Your task to perform on an android device: toggle pop-ups in chrome Image 0: 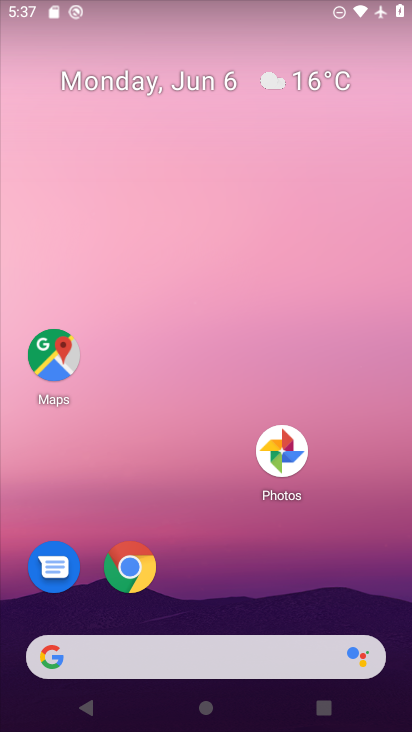
Step 0: drag from (220, 289) to (191, 142)
Your task to perform on an android device: toggle pop-ups in chrome Image 1: 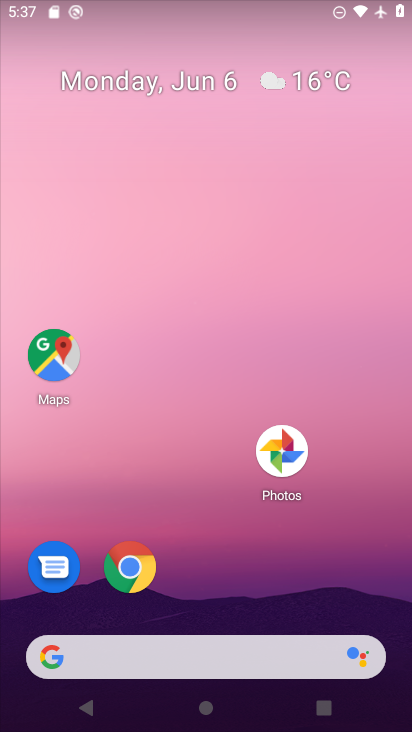
Step 1: drag from (273, 663) to (220, 80)
Your task to perform on an android device: toggle pop-ups in chrome Image 2: 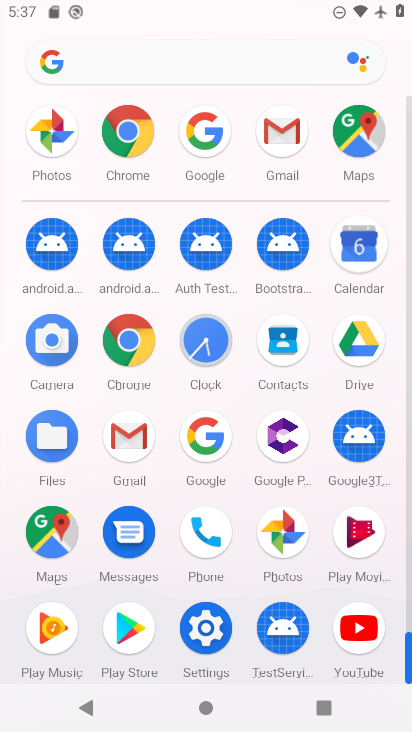
Step 2: click (130, 125)
Your task to perform on an android device: toggle pop-ups in chrome Image 3: 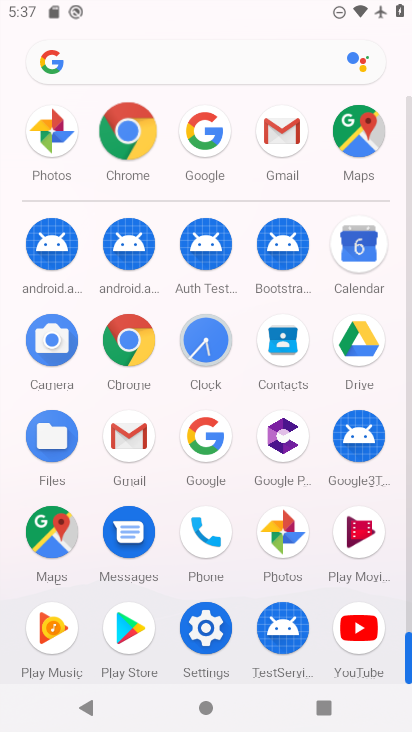
Step 3: click (128, 122)
Your task to perform on an android device: toggle pop-ups in chrome Image 4: 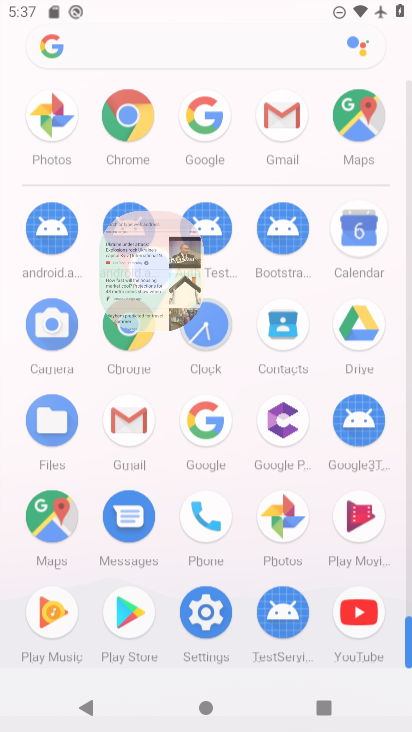
Step 4: click (115, 138)
Your task to perform on an android device: toggle pop-ups in chrome Image 5: 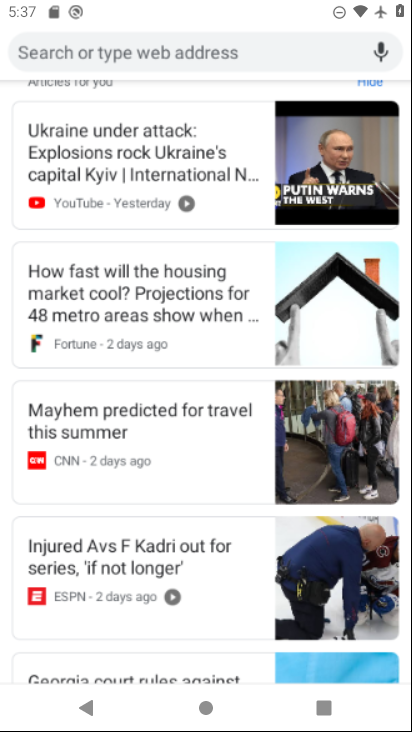
Step 5: click (110, 134)
Your task to perform on an android device: toggle pop-ups in chrome Image 6: 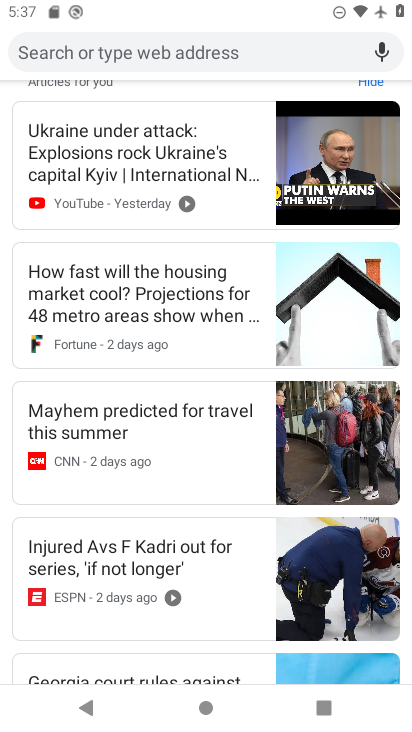
Step 6: press back button
Your task to perform on an android device: toggle pop-ups in chrome Image 7: 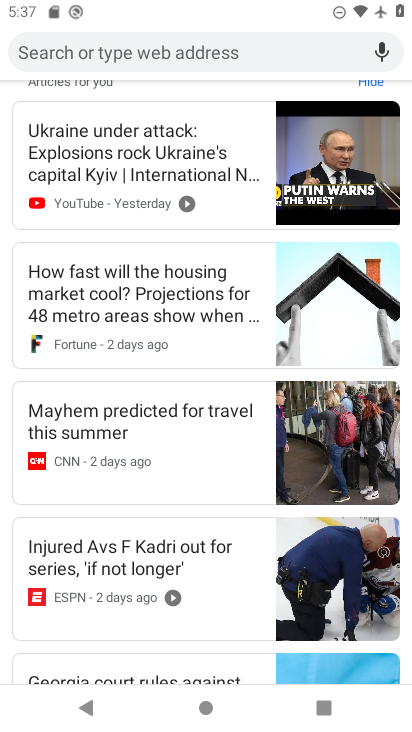
Step 7: press back button
Your task to perform on an android device: toggle pop-ups in chrome Image 8: 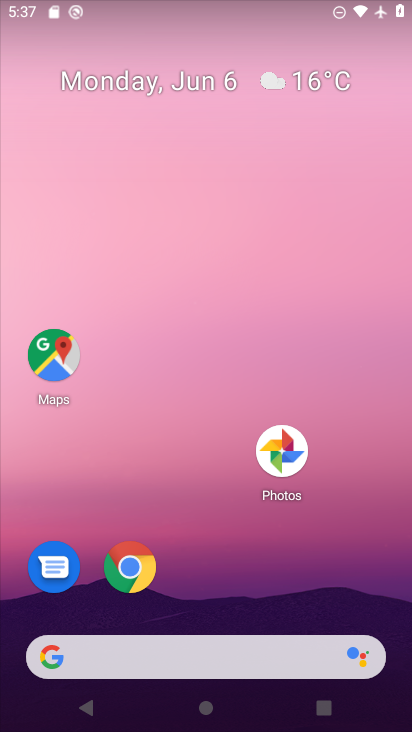
Step 8: drag from (259, 712) to (181, 0)
Your task to perform on an android device: toggle pop-ups in chrome Image 9: 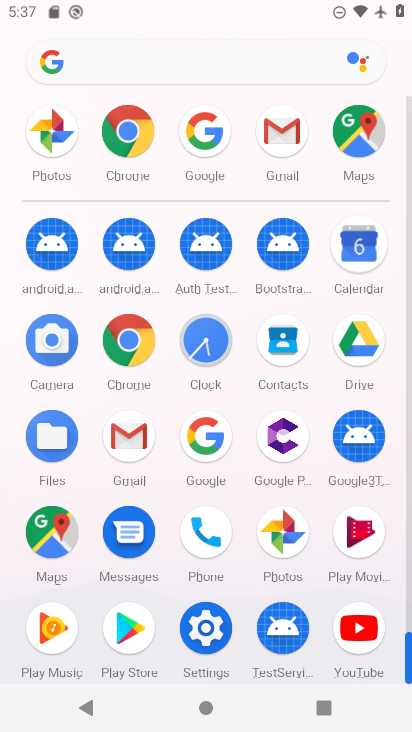
Step 9: click (126, 106)
Your task to perform on an android device: toggle pop-ups in chrome Image 10: 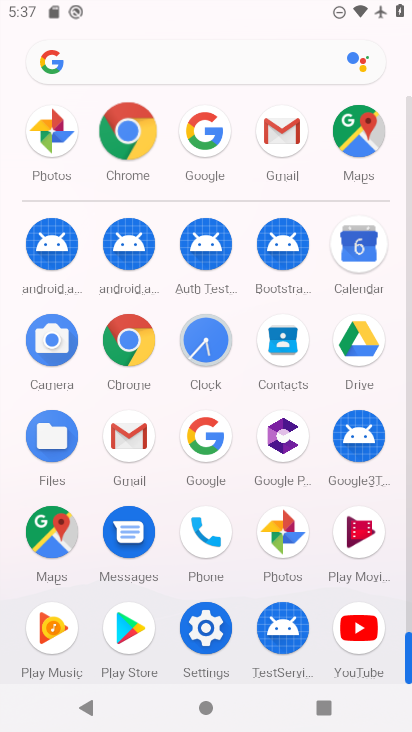
Step 10: click (126, 120)
Your task to perform on an android device: toggle pop-ups in chrome Image 11: 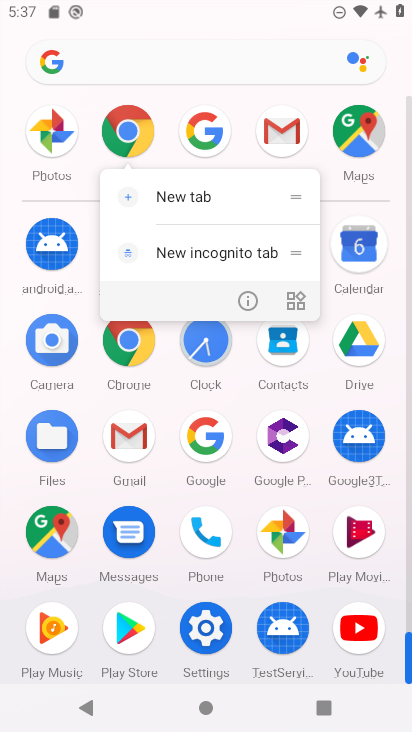
Step 11: click (140, 141)
Your task to perform on an android device: toggle pop-ups in chrome Image 12: 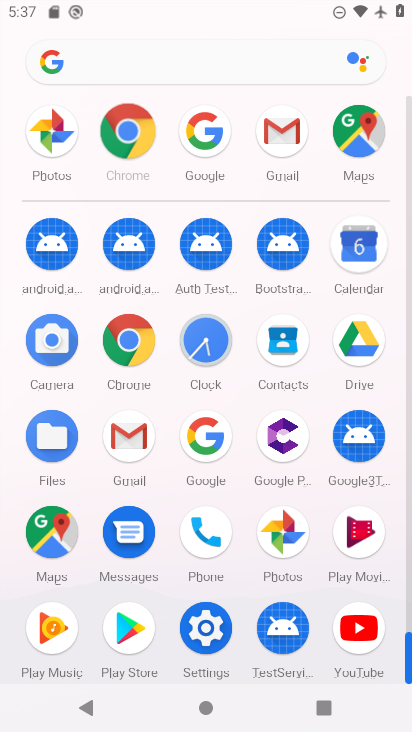
Step 12: click (140, 142)
Your task to perform on an android device: toggle pop-ups in chrome Image 13: 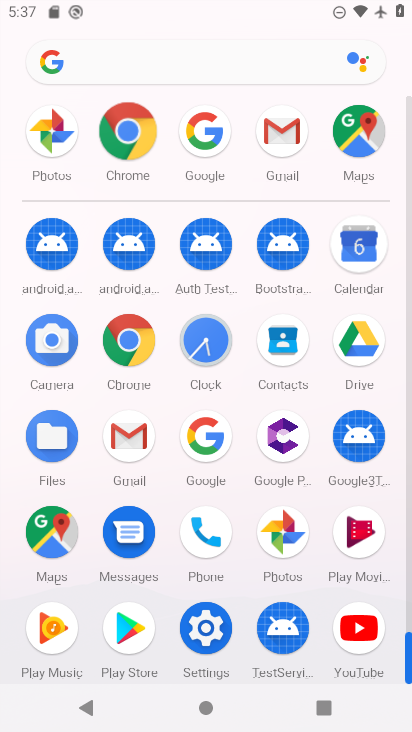
Step 13: click (139, 143)
Your task to perform on an android device: toggle pop-ups in chrome Image 14: 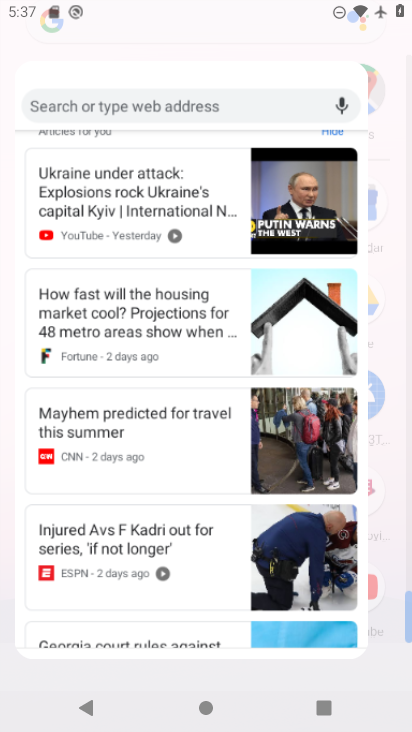
Step 14: click (139, 143)
Your task to perform on an android device: toggle pop-ups in chrome Image 15: 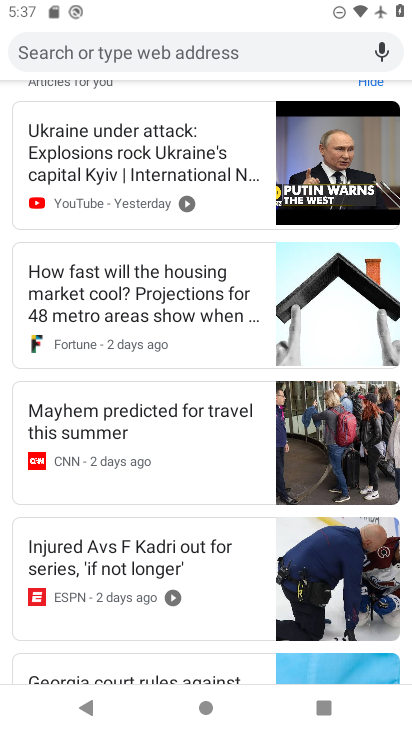
Step 15: drag from (263, 140) to (213, 598)
Your task to perform on an android device: toggle pop-ups in chrome Image 16: 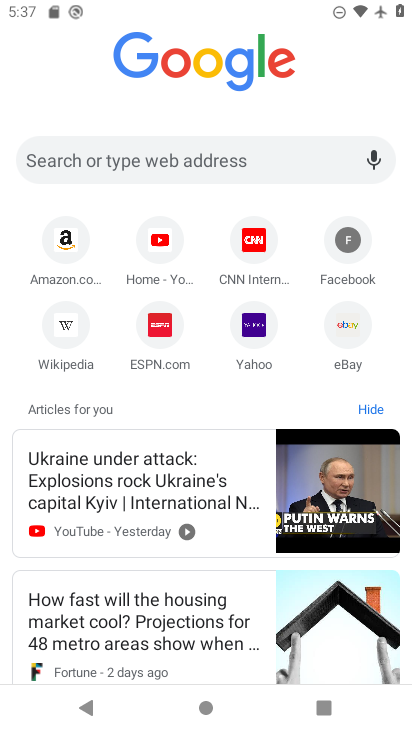
Step 16: drag from (203, 185) to (256, 648)
Your task to perform on an android device: toggle pop-ups in chrome Image 17: 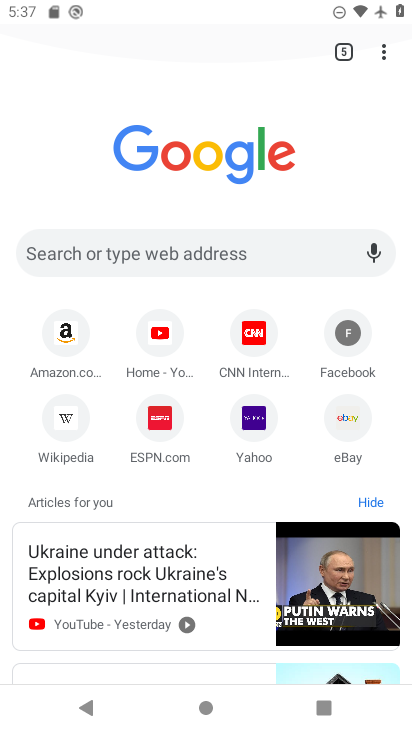
Step 17: drag from (242, 230) to (333, 692)
Your task to perform on an android device: toggle pop-ups in chrome Image 18: 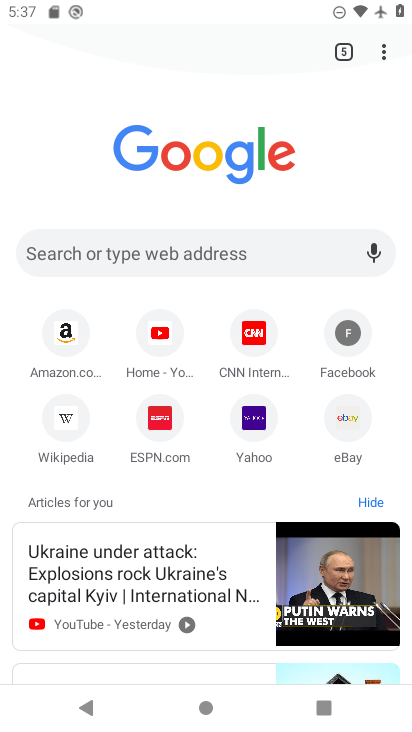
Step 18: drag from (230, 159) to (276, 554)
Your task to perform on an android device: toggle pop-ups in chrome Image 19: 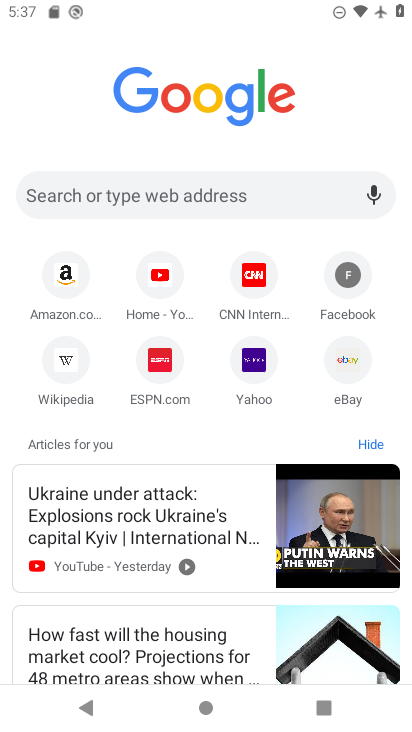
Step 19: drag from (350, 59) to (382, 412)
Your task to perform on an android device: toggle pop-ups in chrome Image 20: 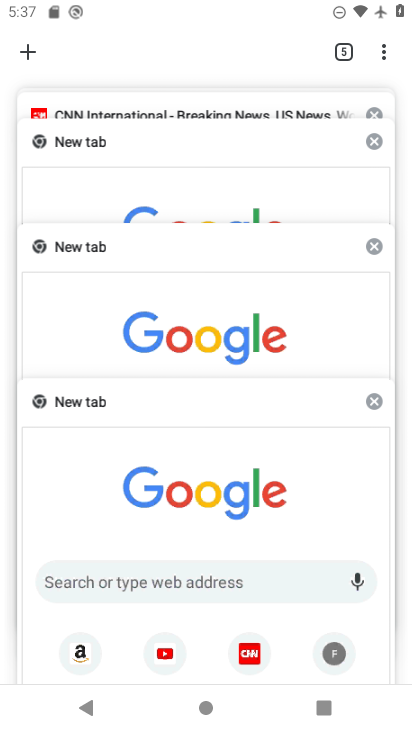
Step 20: drag from (382, 52) to (296, 205)
Your task to perform on an android device: toggle pop-ups in chrome Image 21: 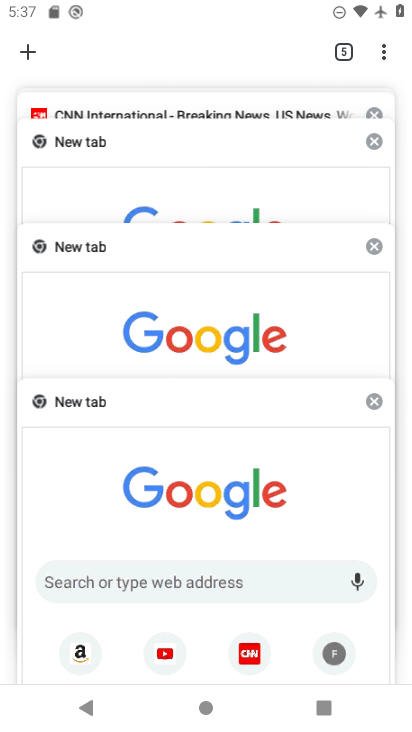
Step 21: click (82, 61)
Your task to perform on an android device: toggle pop-ups in chrome Image 22: 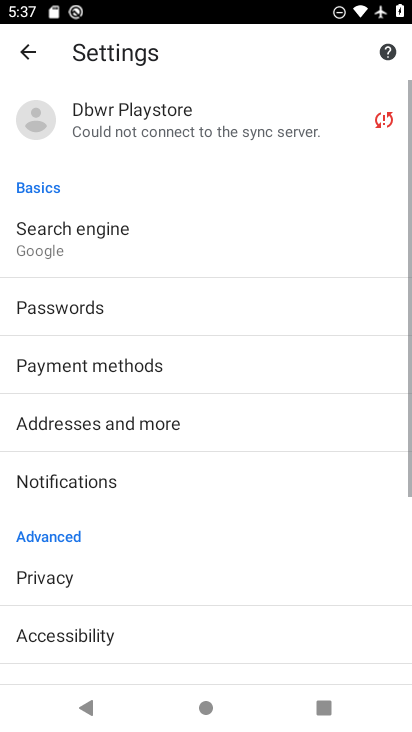
Step 22: click (82, 61)
Your task to perform on an android device: toggle pop-ups in chrome Image 23: 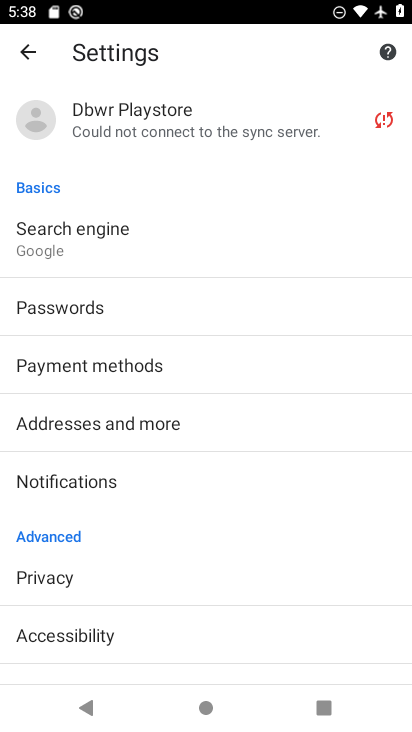
Step 23: drag from (43, 548) to (56, 264)
Your task to perform on an android device: toggle pop-ups in chrome Image 24: 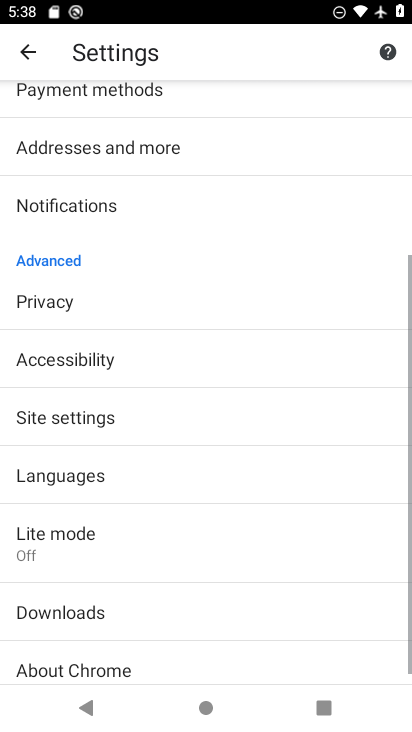
Step 24: drag from (93, 443) to (80, 157)
Your task to perform on an android device: toggle pop-ups in chrome Image 25: 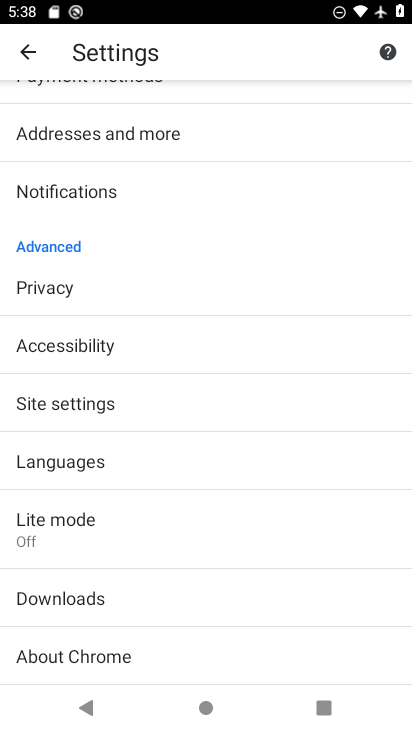
Step 25: click (53, 404)
Your task to perform on an android device: toggle pop-ups in chrome Image 26: 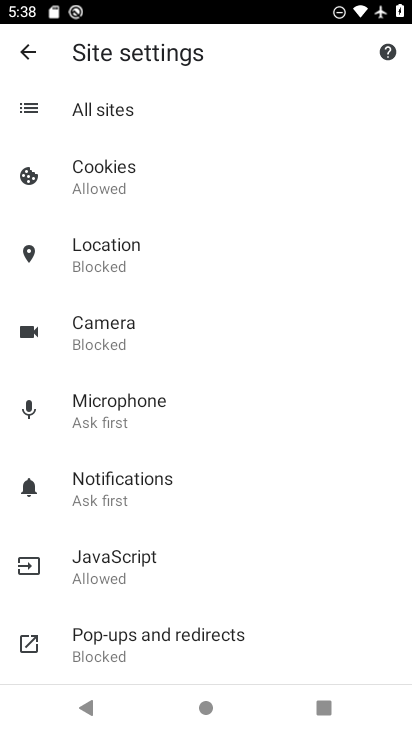
Step 26: click (96, 637)
Your task to perform on an android device: toggle pop-ups in chrome Image 27: 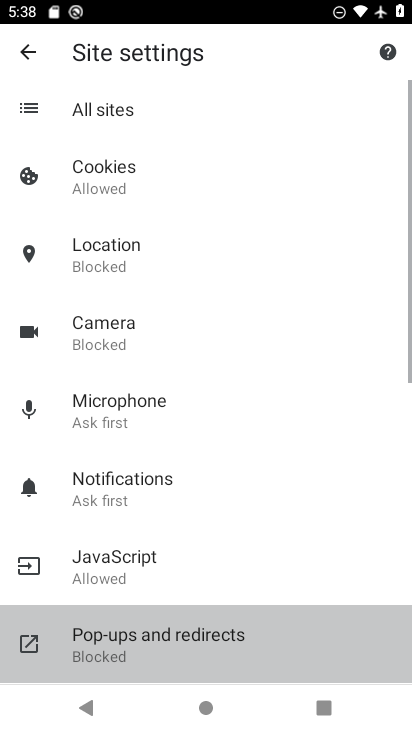
Step 27: click (99, 637)
Your task to perform on an android device: toggle pop-ups in chrome Image 28: 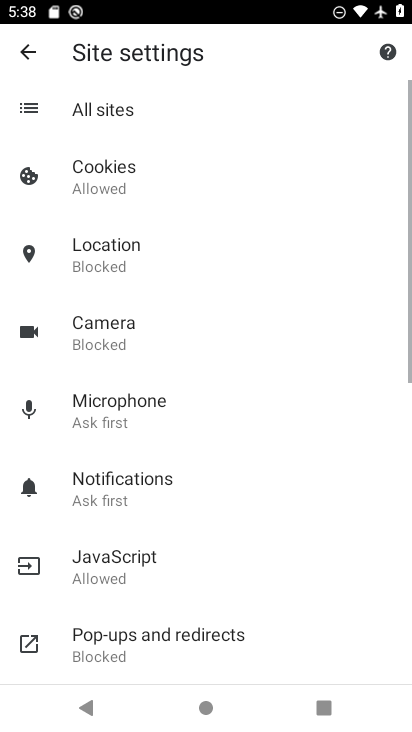
Step 28: click (99, 637)
Your task to perform on an android device: toggle pop-ups in chrome Image 29: 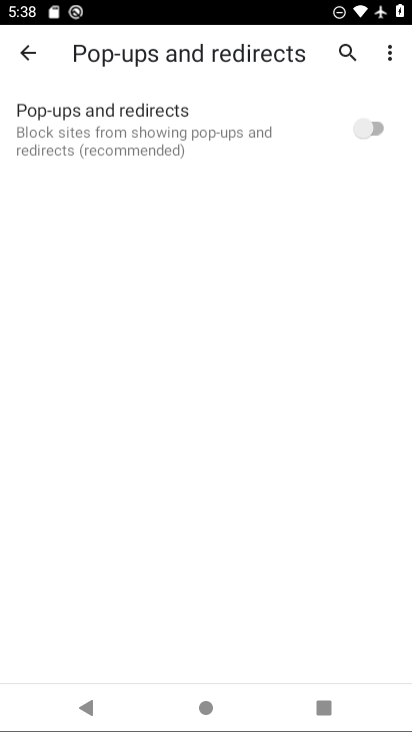
Step 29: click (102, 635)
Your task to perform on an android device: toggle pop-ups in chrome Image 30: 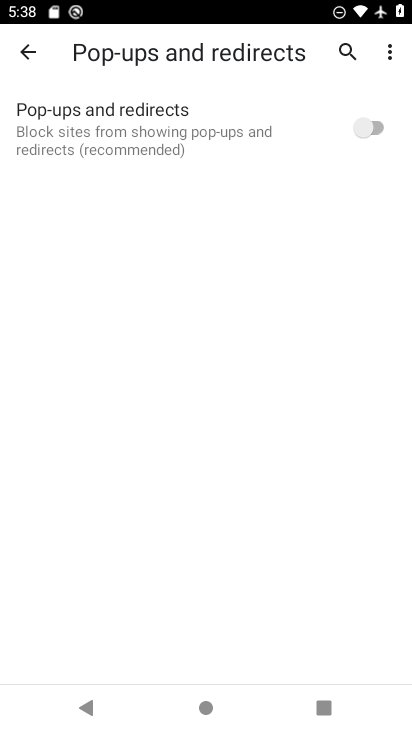
Step 30: click (360, 125)
Your task to perform on an android device: toggle pop-ups in chrome Image 31: 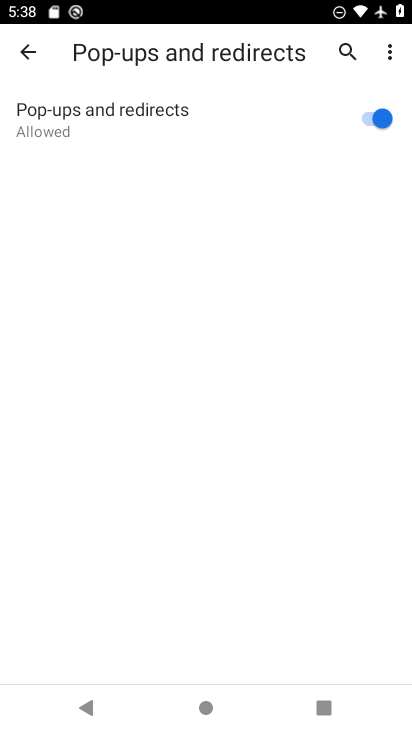
Step 31: task complete